Your task to perform on an android device: Open Chrome and go to settings Image 0: 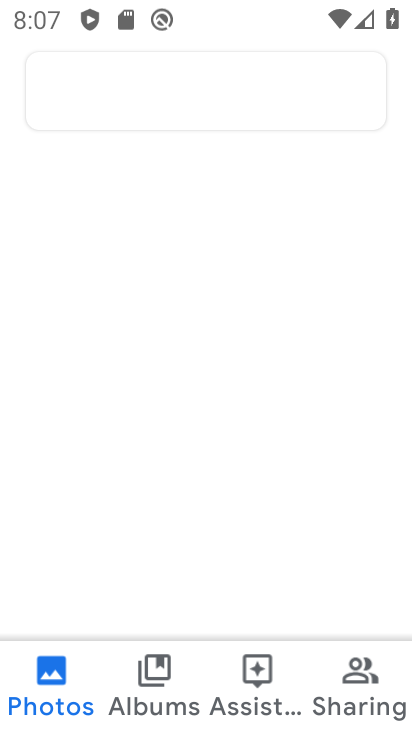
Step 0: drag from (331, 573) to (340, 444)
Your task to perform on an android device: Open Chrome and go to settings Image 1: 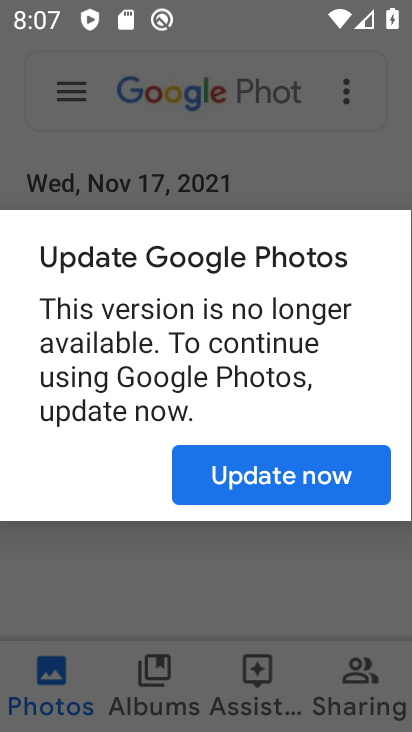
Step 1: press home button
Your task to perform on an android device: Open Chrome and go to settings Image 2: 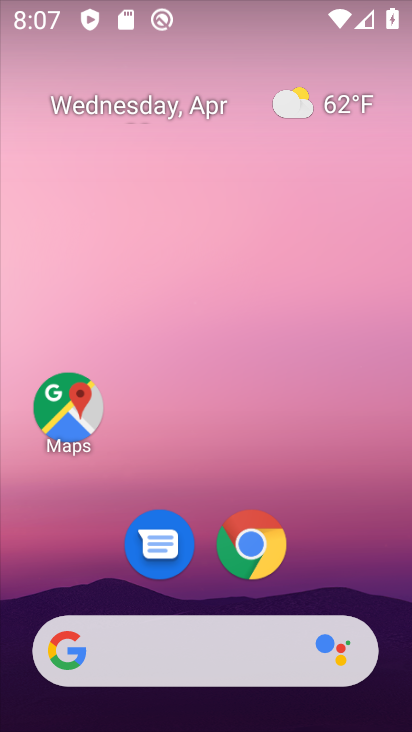
Step 2: click (257, 547)
Your task to perform on an android device: Open Chrome and go to settings Image 3: 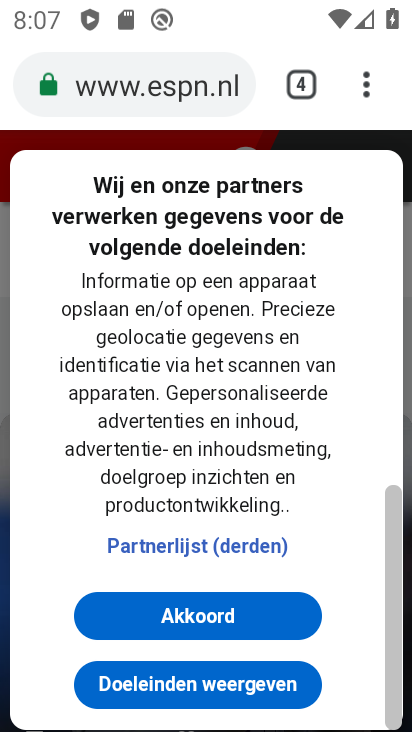
Step 3: task complete